Your task to perform on an android device: Go to Google maps Image 0: 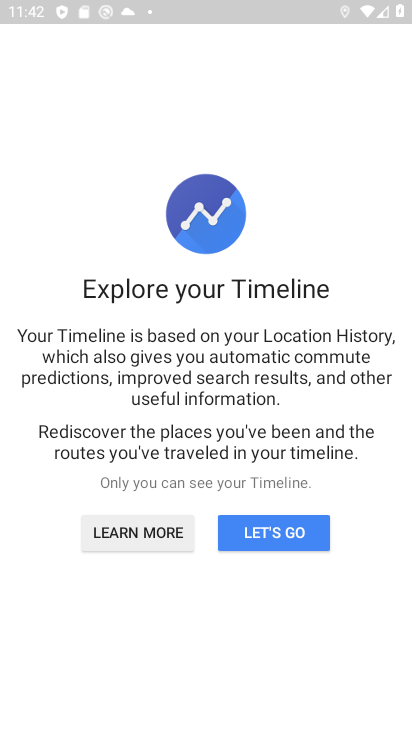
Step 0: press home button
Your task to perform on an android device: Go to Google maps Image 1: 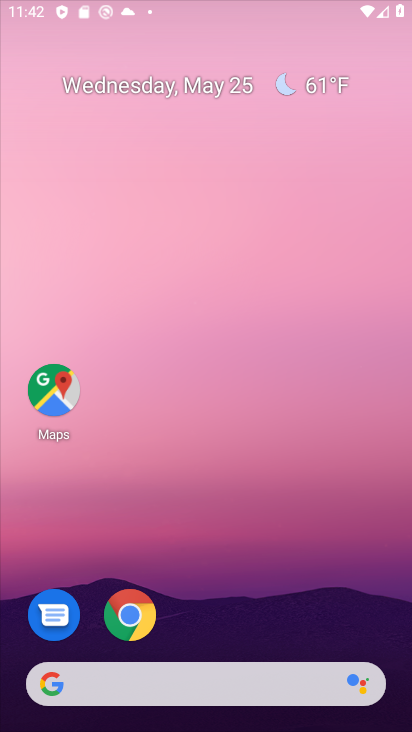
Step 1: drag from (368, 618) to (274, 122)
Your task to perform on an android device: Go to Google maps Image 2: 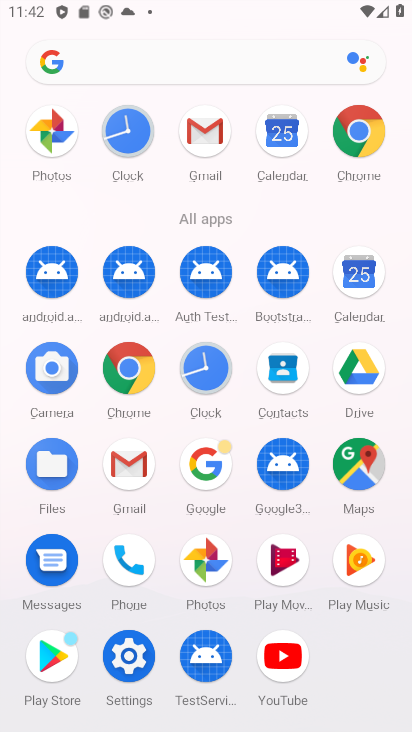
Step 2: click (355, 479)
Your task to perform on an android device: Go to Google maps Image 3: 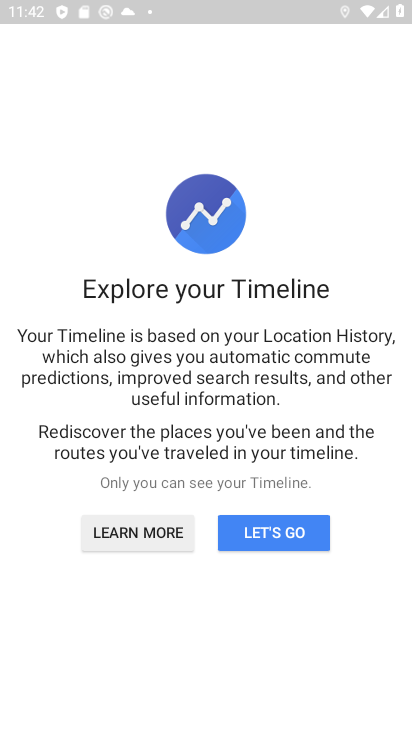
Step 3: press back button
Your task to perform on an android device: Go to Google maps Image 4: 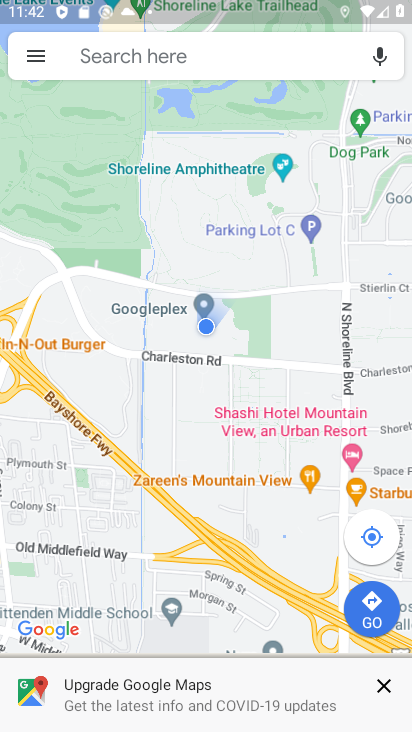
Step 4: press back button
Your task to perform on an android device: Go to Google maps Image 5: 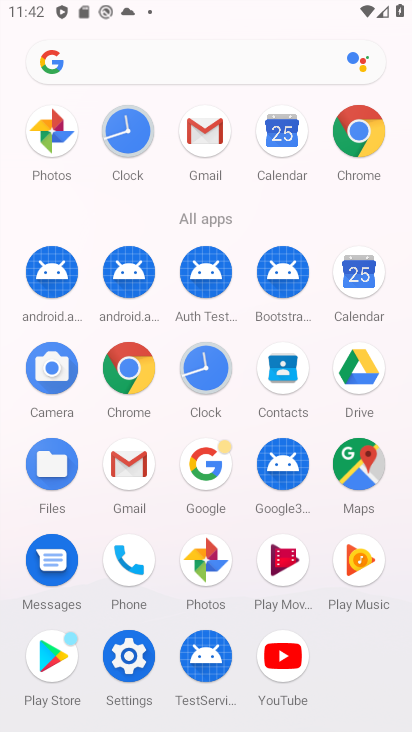
Step 5: click (357, 466)
Your task to perform on an android device: Go to Google maps Image 6: 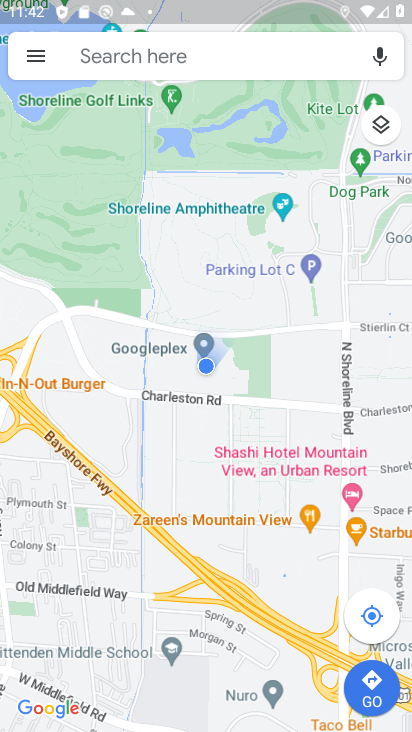
Step 6: task complete